Your task to perform on an android device: What's the weather? Image 0: 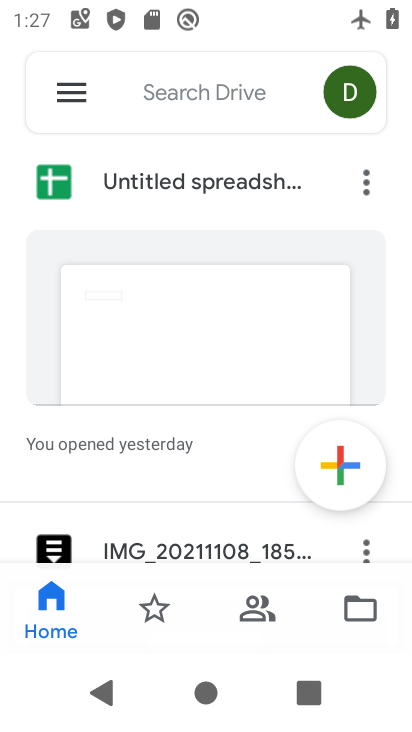
Step 0: press home button
Your task to perform on an android device: What's the weather? Image 1: 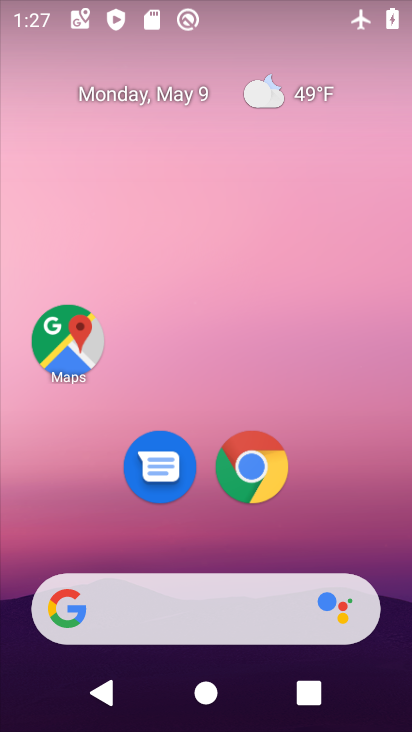
Step 1: drag from (381, 545) to (383, 155)
Your task to perform on an android device: What's the weather? Image 2: 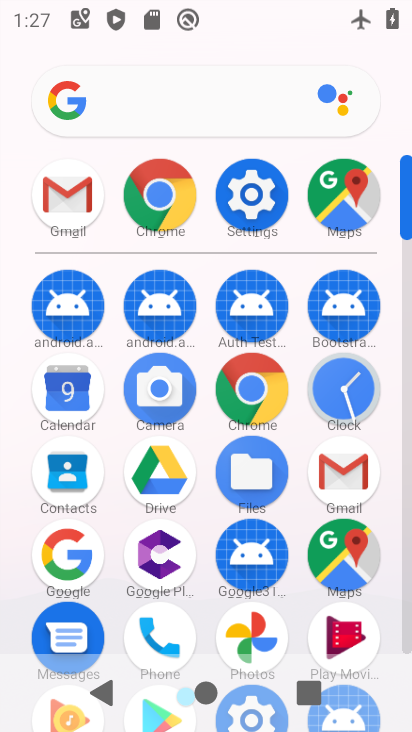
Step 2: click (154, 215)
Your task to perform on an android device: What's the weather? Image 3: 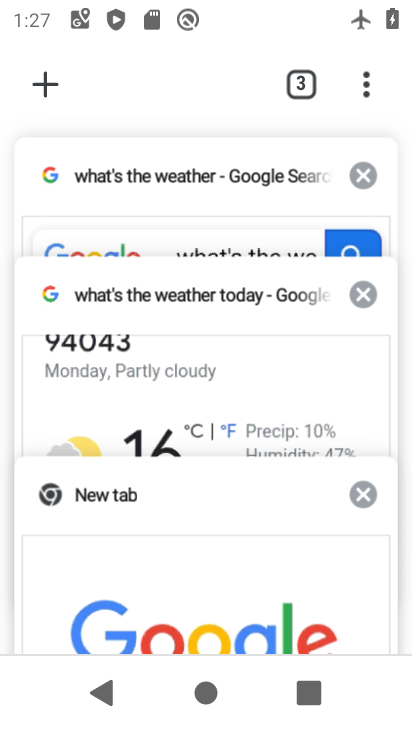
Step 3: click (43, 87)
Your task to perform on an android device: What's the weather? Image 4: 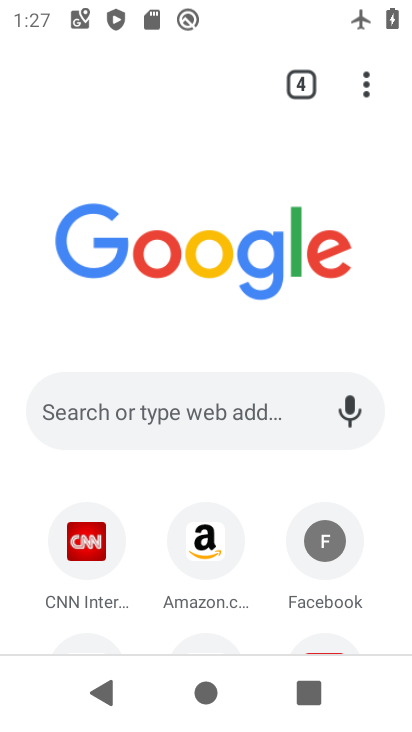
Step 4: click (163, 404)
Your task to perform on an android device: What's the weather? Image 5: 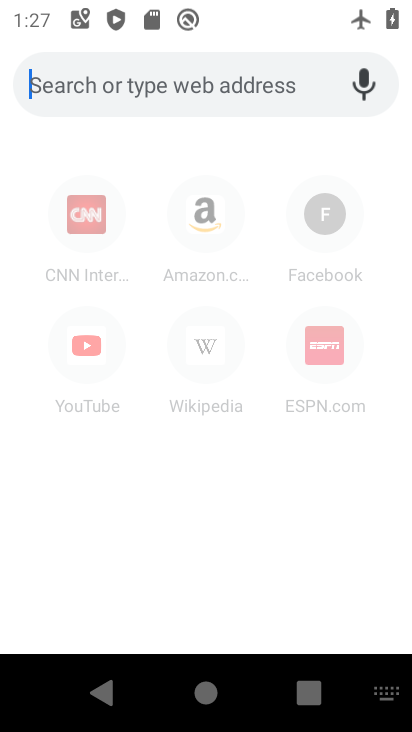
Step 5: type "what's the weather "
Your task to perform on an android device: What's the weather? Image 6: 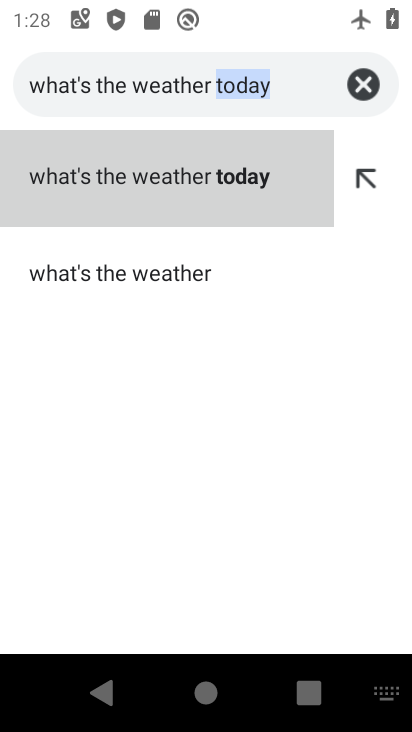
Step 6: click (115, 257)
Your task to perform on an android device: What's the weather? Image 7: 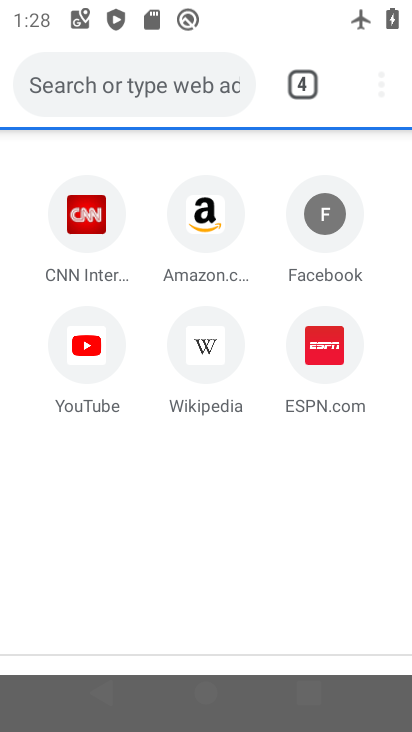
Step 7: click (113, 267)
Your task to perform on an android device: What's the weather? Image 8: 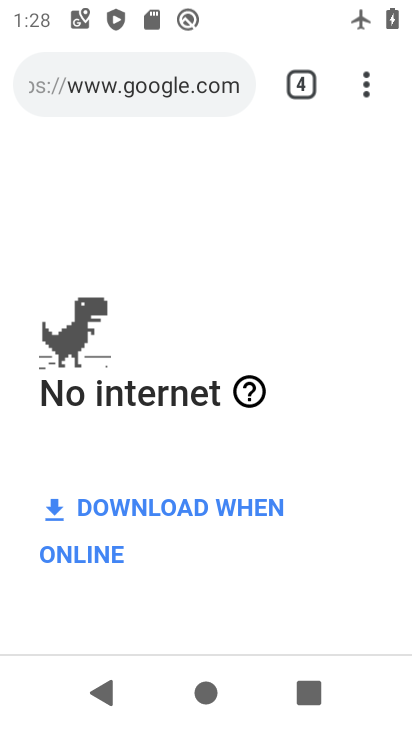
Step 8: task complete